Your task to perform on an android device: Show me some nice wallpapers for my computer Image 0: 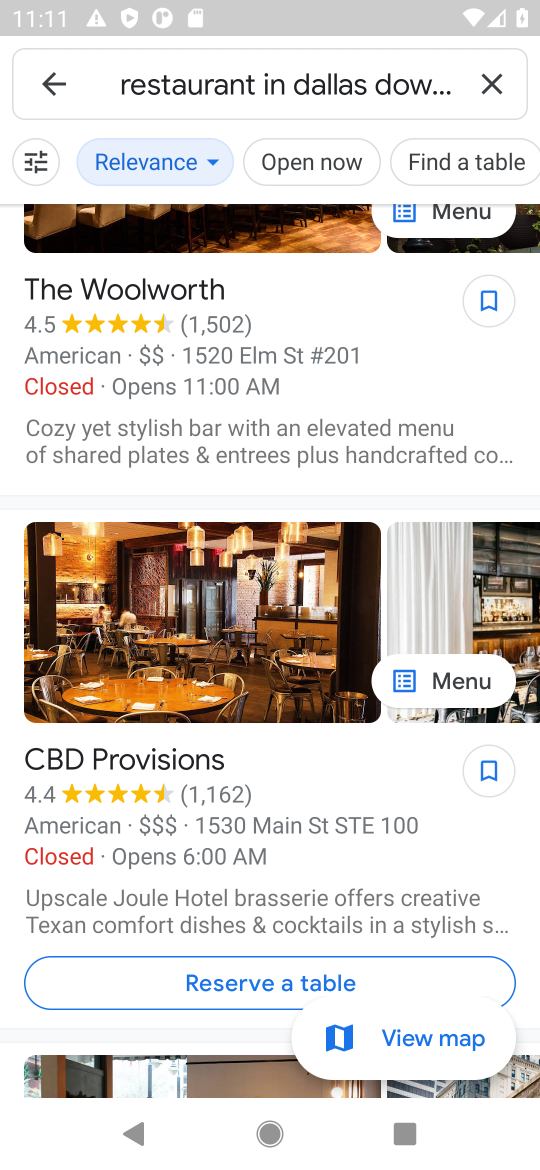
Step 0: press home button
Your task to perform on an android device: Show me some nice wallpapers for my computer Image 1: 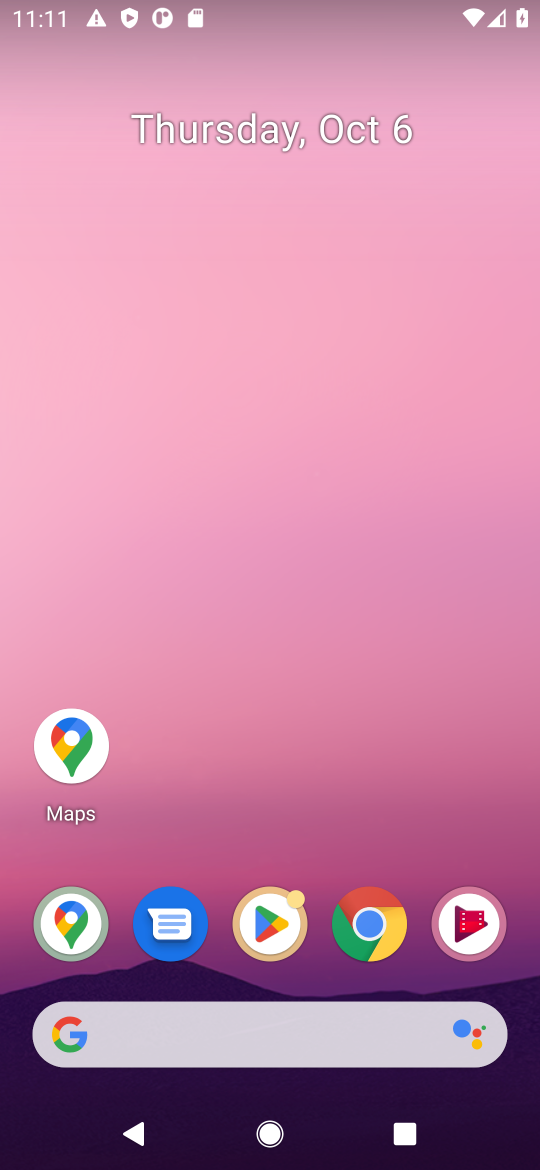
Step 1: click (362, 923)
Your task to perform on an android device: Show me some nice wallpapers for my computer Image 2: 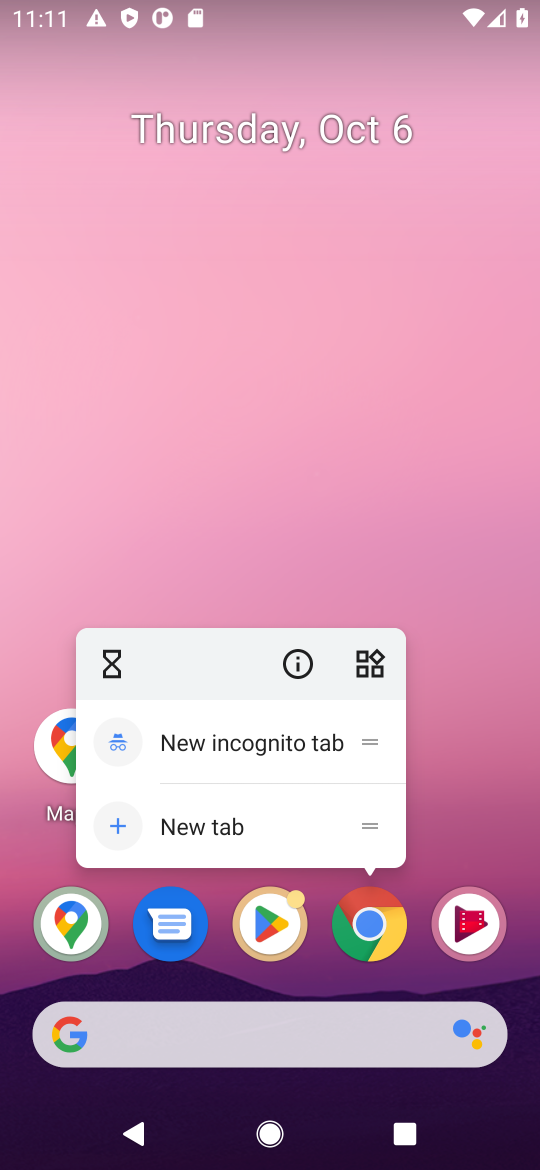
Step 2: click (371, 919)
Your task to perform on an android device: Show me some nice wallpapers for my computer Image 3: 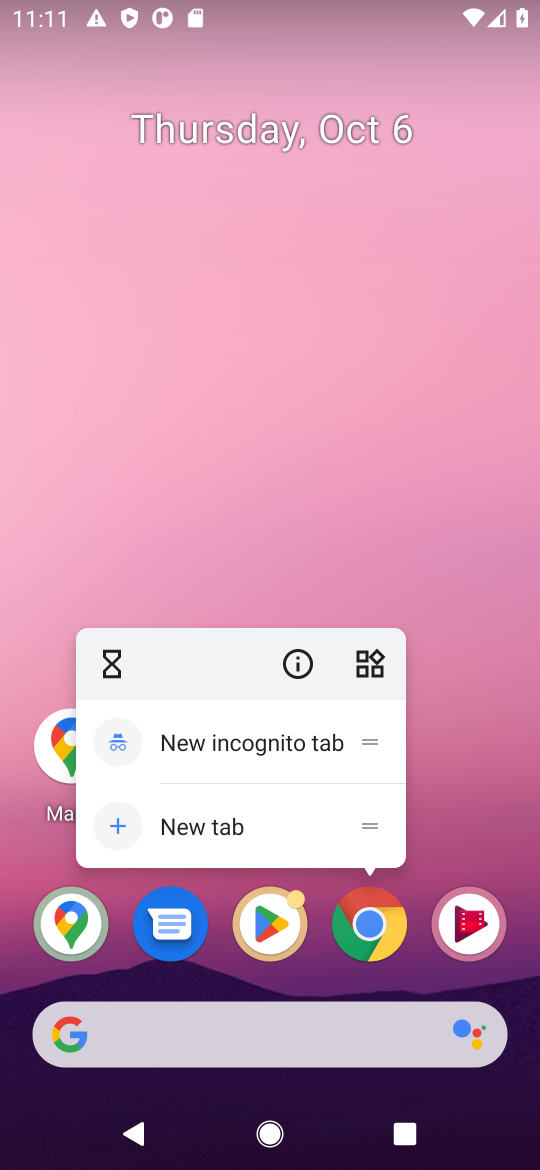
Step 3: click (378, 917)
Your task to perform on an android device: Show me some nice wallpapers for my computer Image 4: 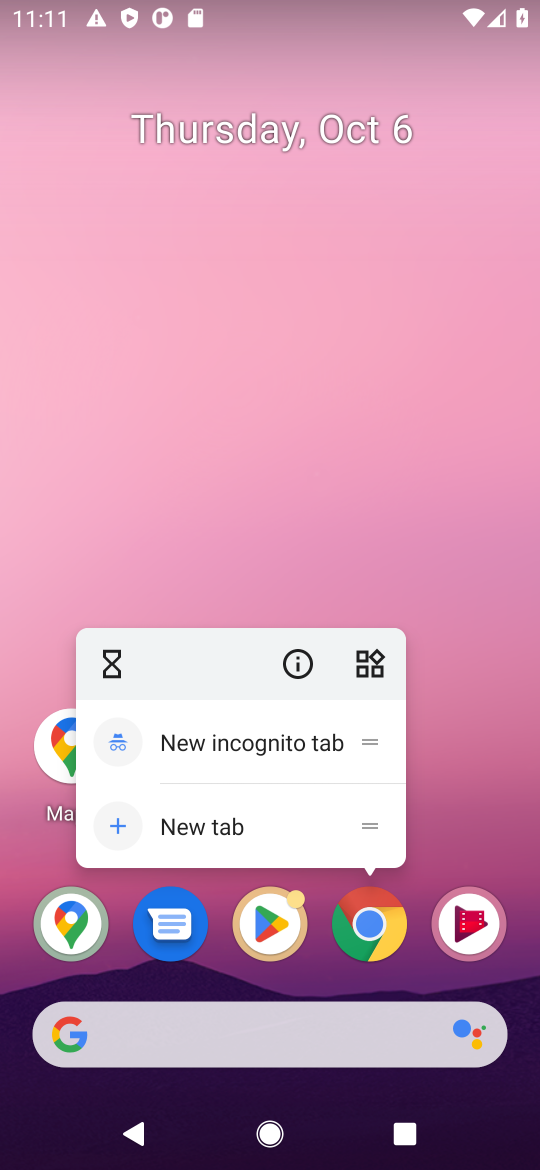
Step 4: click (361, 923)
Your task to perform on an android device: Show me some nice wallpapers for my computer Image 5: 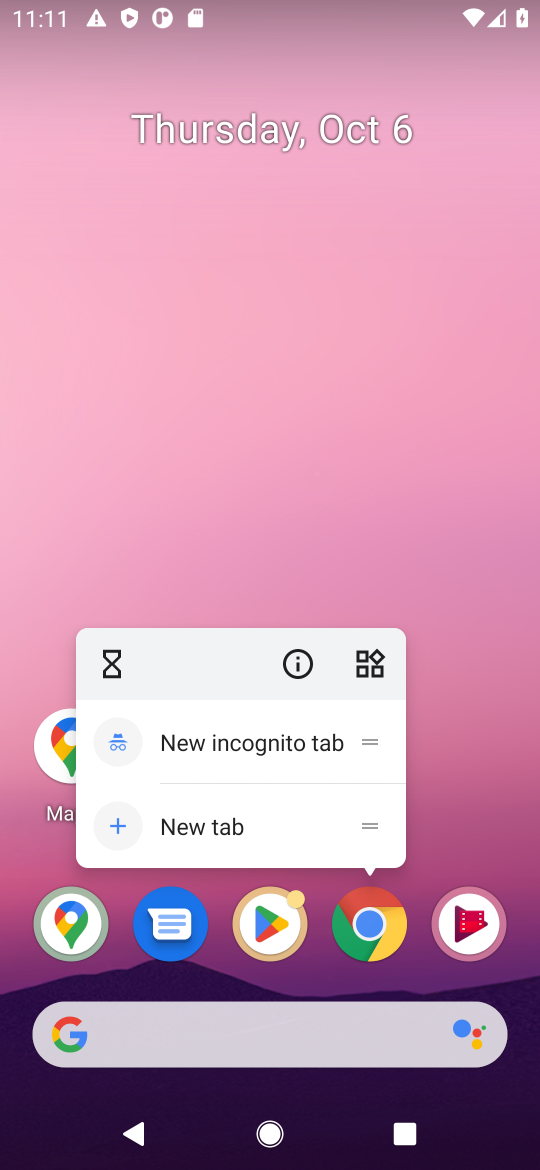
Step 5: click (361, 924)
Your task to perform on an android device: Show me some nice wallpapers for my computer Image 6: 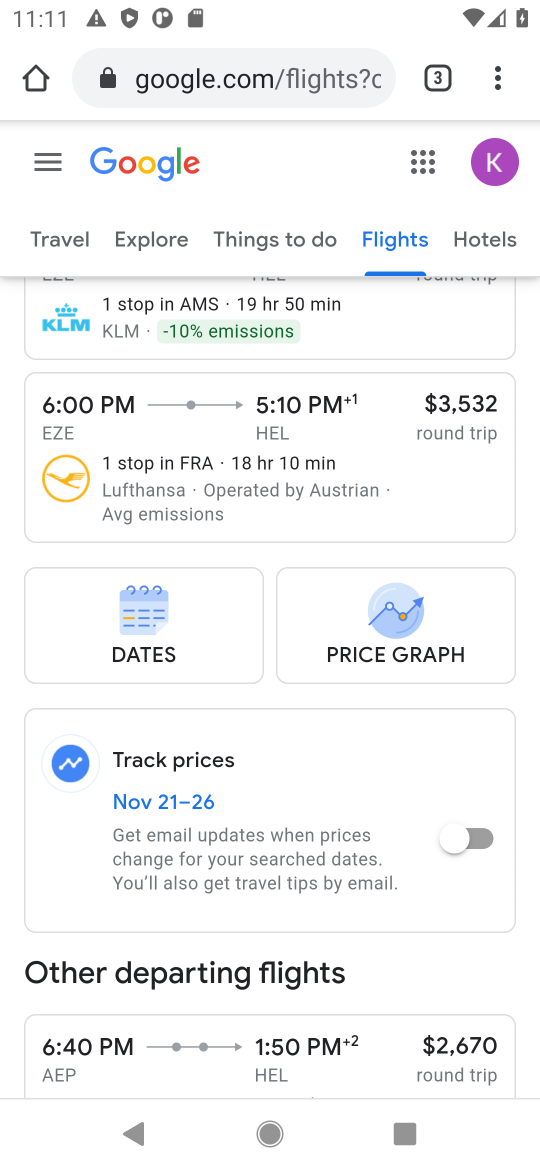
Step 6: click (320, 73)
Your task to perform on an android device: Show me some nice wallpapers for my computer Image 7: 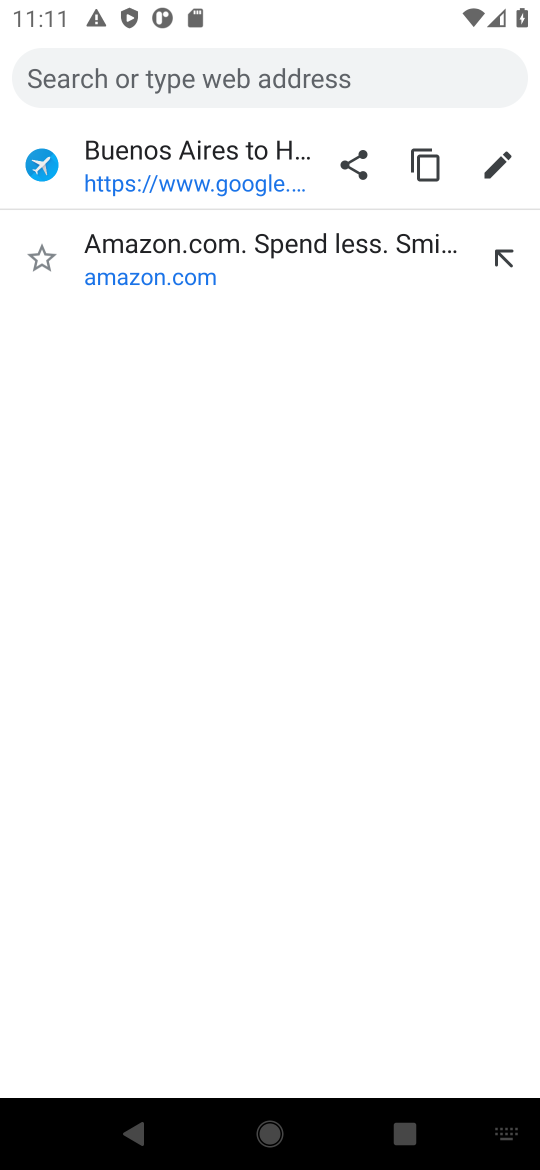
Step 7: type "nice wallpapers for my computer"
Your task to perform on an android device: Show me some nice wallpapers for my computer Image 8: 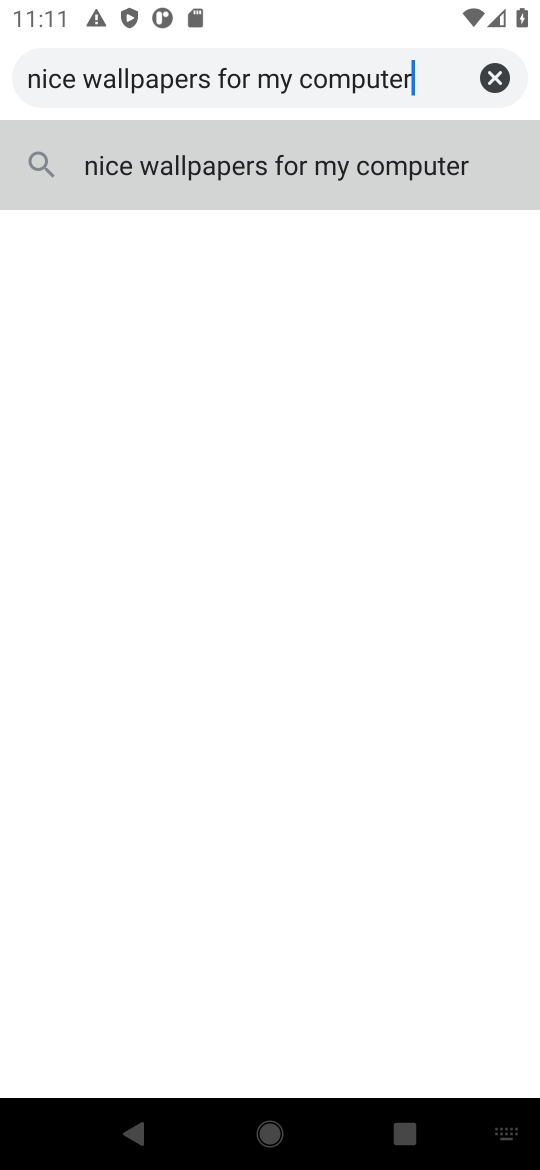
Step 8: click (152, 178)
Your task to perform on an android device: Show me some nice wallpapers for my computer Image 9: 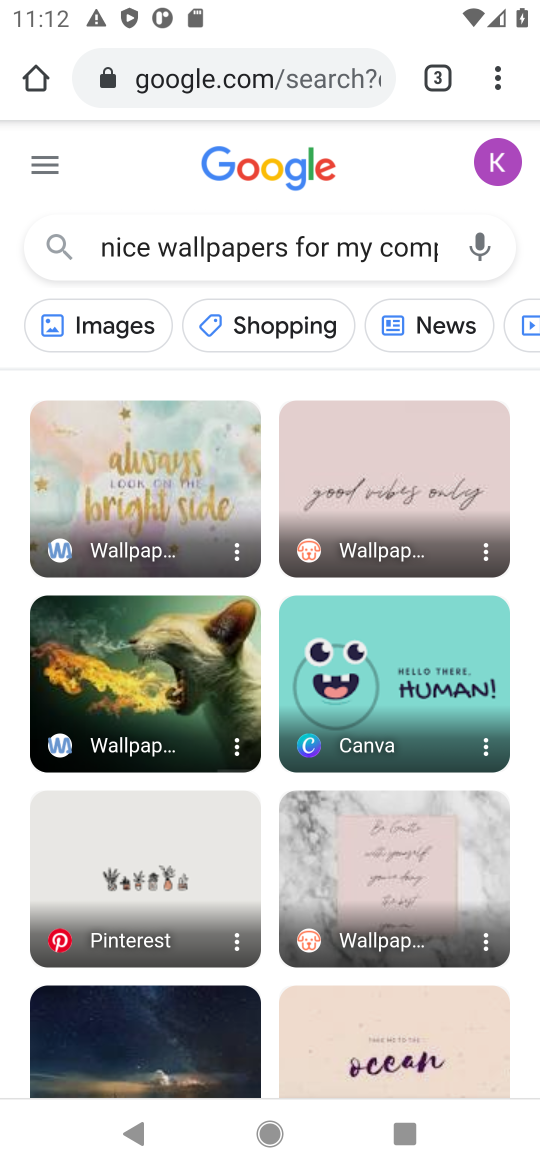
Step 9: drag from (243, 1066) to (440, 300)
Your task to perform on an android device: Show me some nice wallpapers for my computer Image 10: 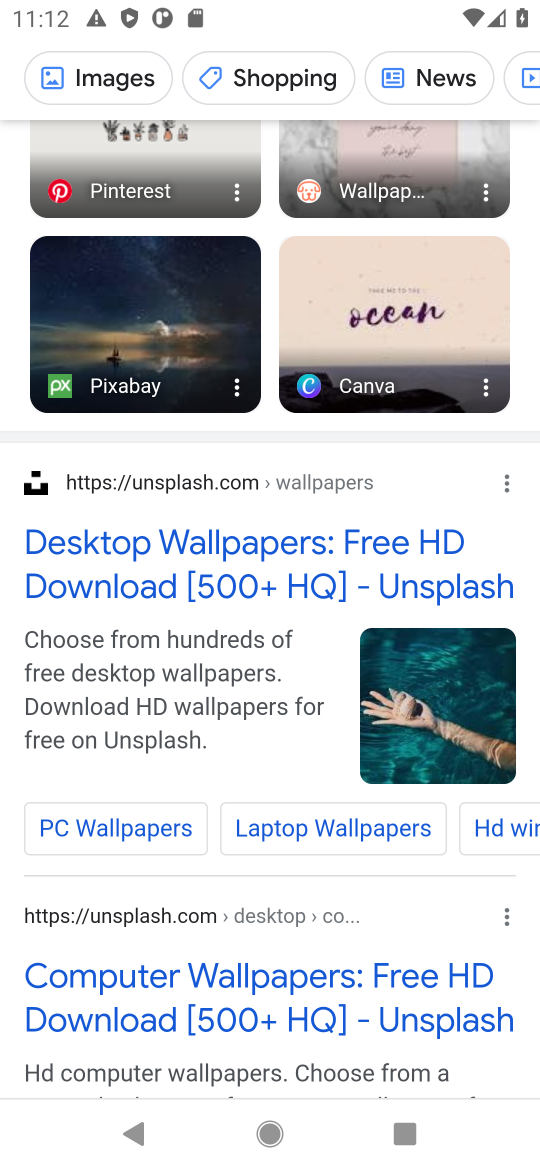
Step 10: click (141, 545)
Your task to perform on an android device: Show me some nice wallpapers for my computer Image 11: 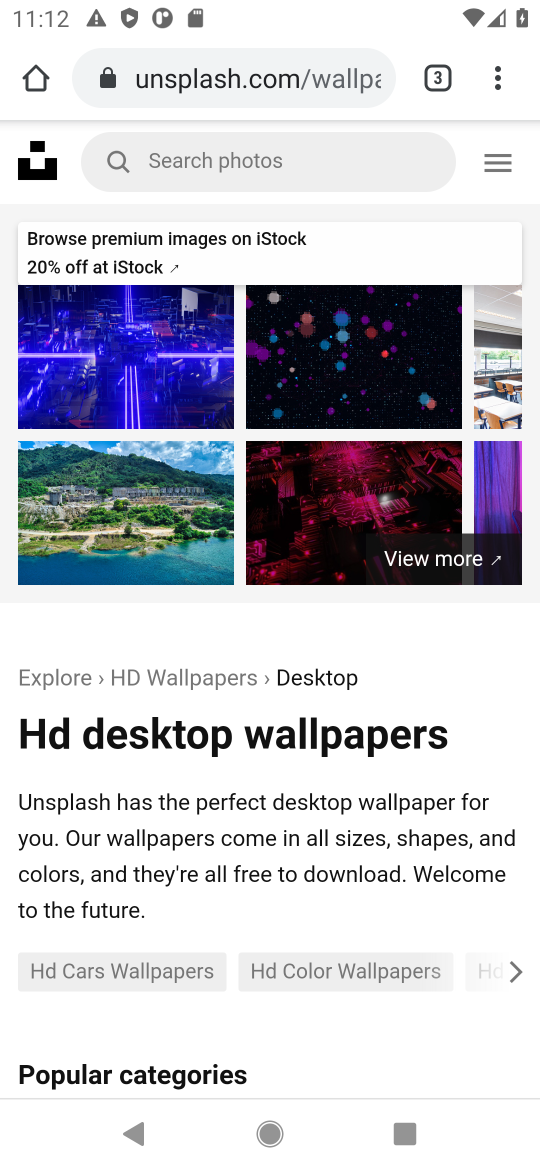
Step 11: task complete